Your task to perform on an android device: Go to Reddit.com Image 0: 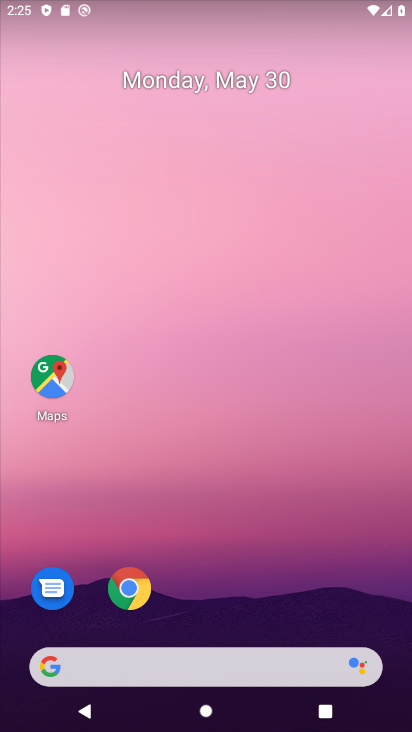
Step 0: click (132, 590)
Your task to perform on an android device: Go to Reddit.com Image 1: 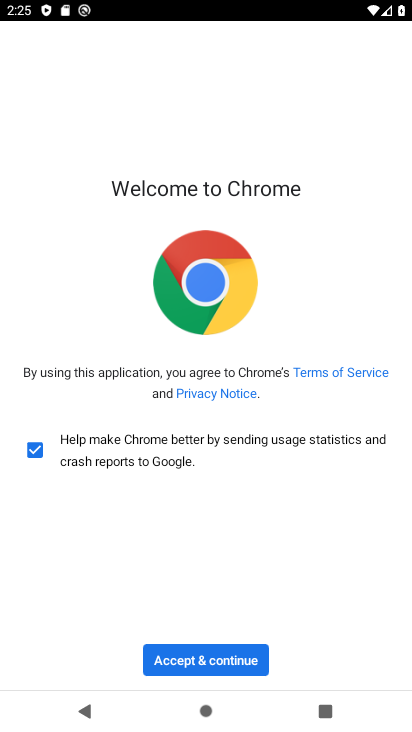
Step 1: click (208, 658)
Your task to perform on an android device: Go to Reddit.com Image 2: 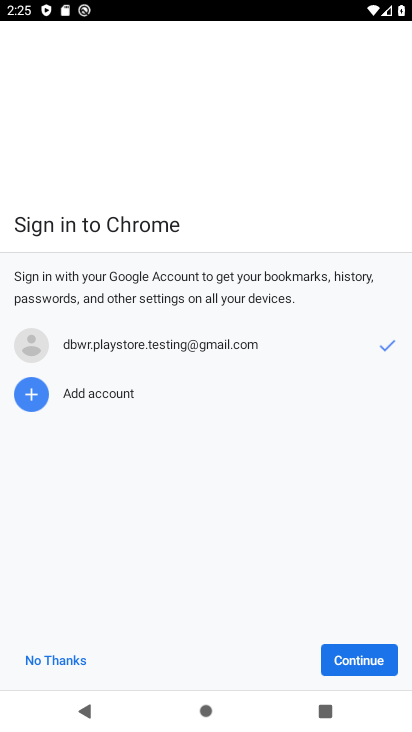
Step 2: click (366, 656)
Your task to perform on an android device: Go to Reddit.com Image 3: 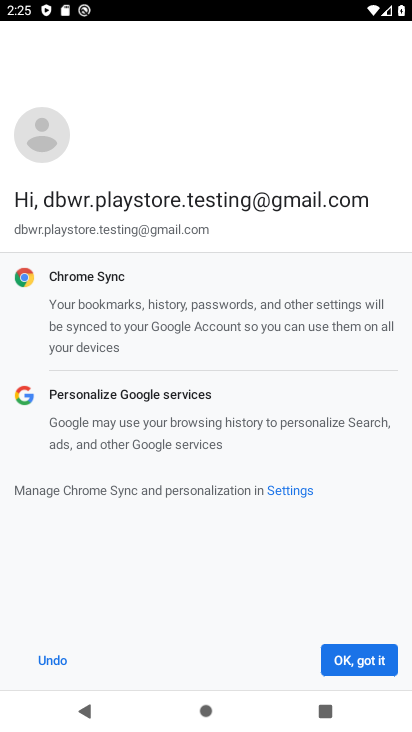
Step 3: click (347, 673)
Your task to perform on an android device: Go to Reddit.com Image 4: 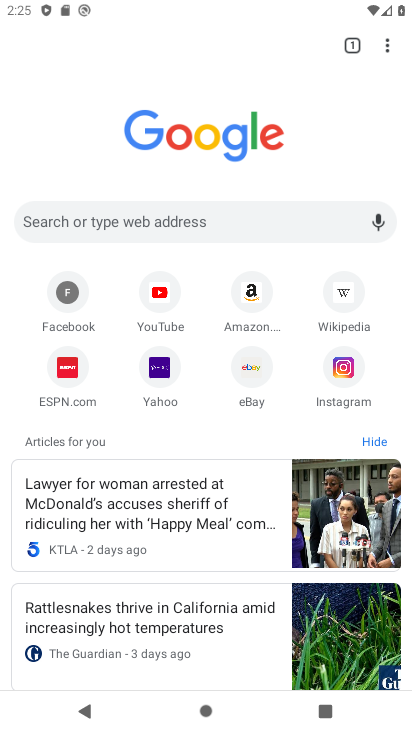
Step 4: click (92, 220)
Your task to perform on an android device: Go to Reddit.com Image 5: 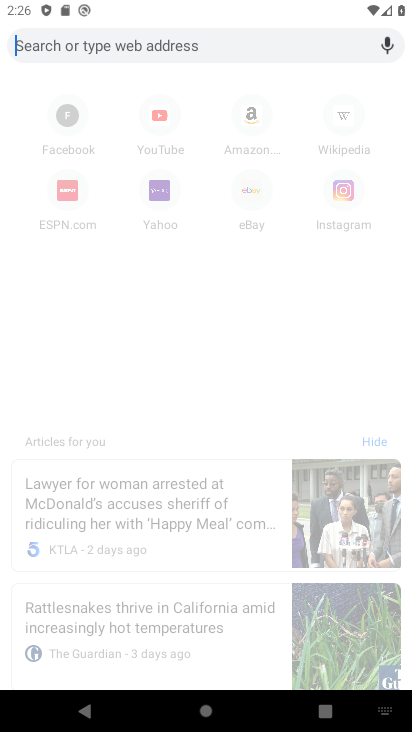
Step 5: type "reddit.com"
Your task to perform on an android device: Go to Reddit.com Image 6: 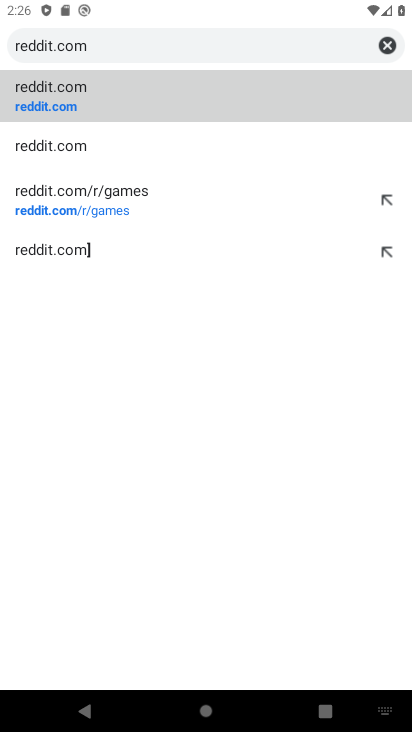
Step 6: click (210, 107)
Your task to perform on an android device: Go to Reddit.com Image 7: 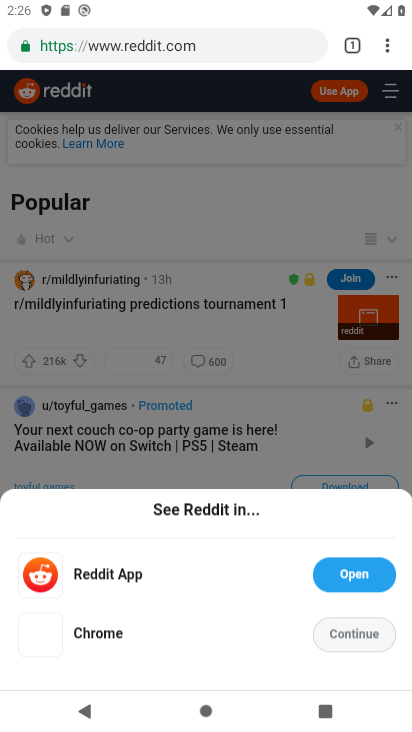
Step 7: task complete